Your task to perform on an android device: Open Amazon Image 0: 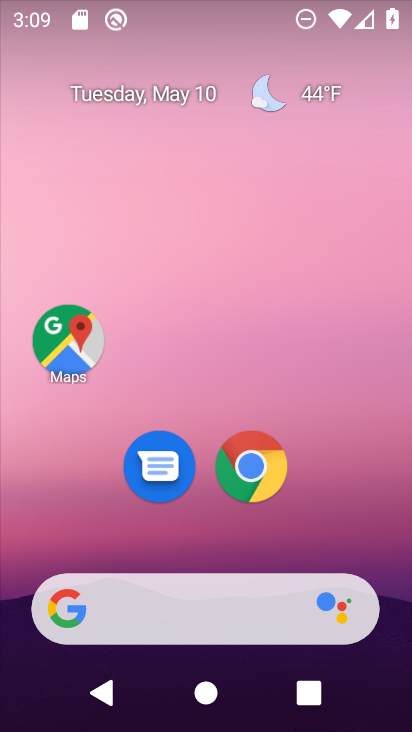
Step 0: click (247, 467)
Your task to perform on an android device: Open Amazon Image 1: 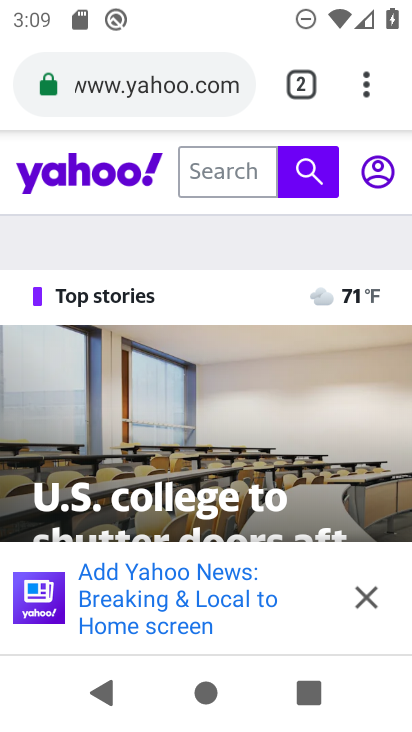
Step 1: click (152, 102)
Your task to perform on an android device: Open Amazon Image 2: 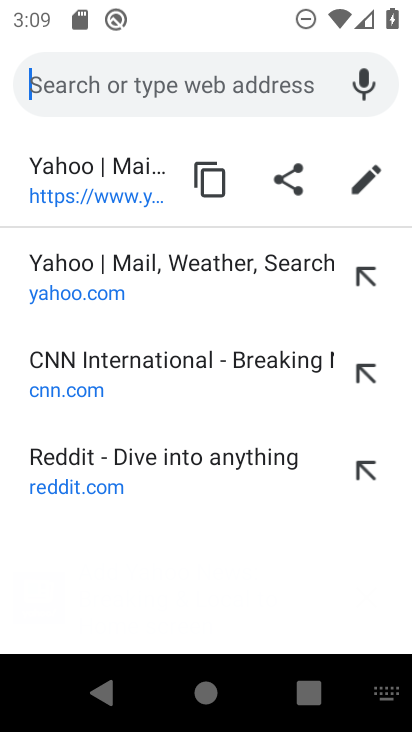
Step 2: type "amazon"
Your task to perform on an android device: Open Amazon Image 3: 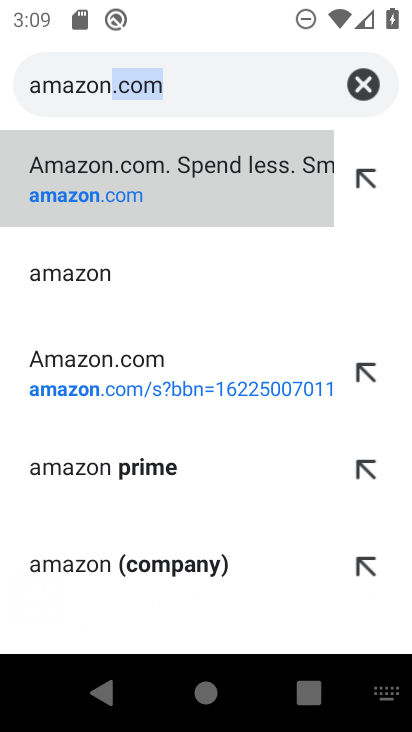
Step 3: click (162, 202)
Your task to perform on an android device: Open Amazon Image 4: 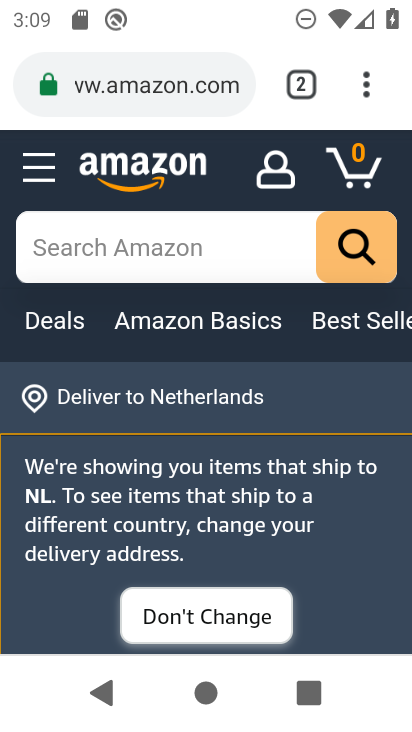
Step 4: task complete